Your task to perform on an android device: Go to eBay Image 0: 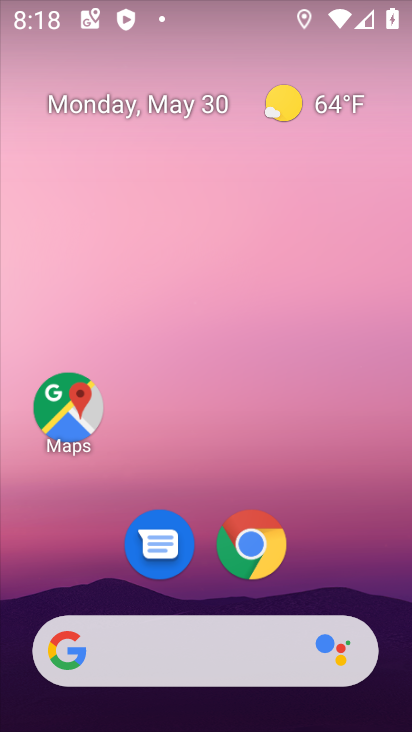
Step 0: drag from (176, 529) to (92, 104)
Your task to perform on an android device: Go to eBay Image 1: 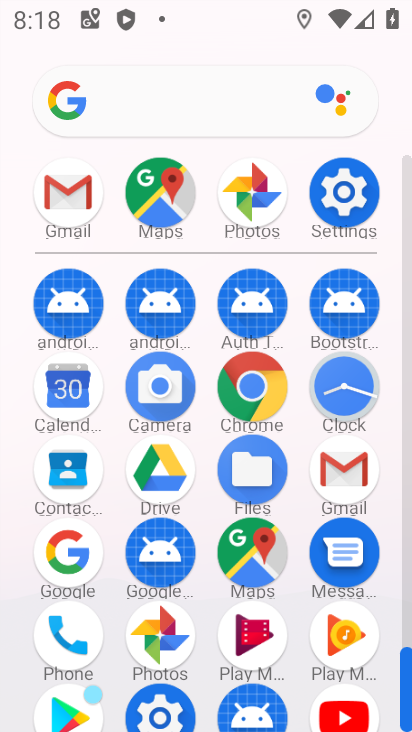
Step 1: click (61, 567)
Your task to perform on an android device: Go to eBay Image 2: 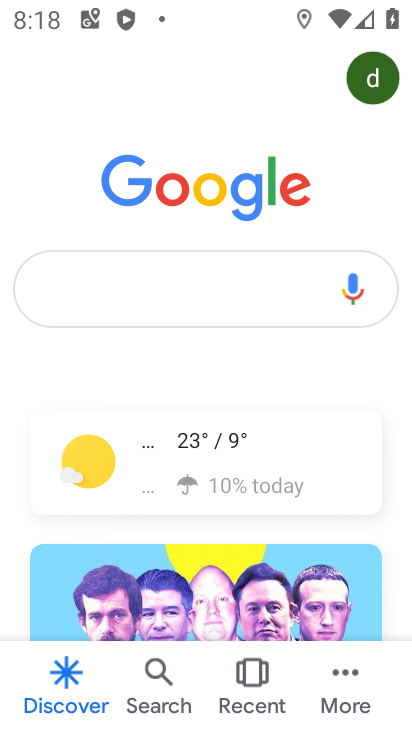
Step 2: click (157, 300)
Your task to perform on an android device: Go to eBay Image 3: 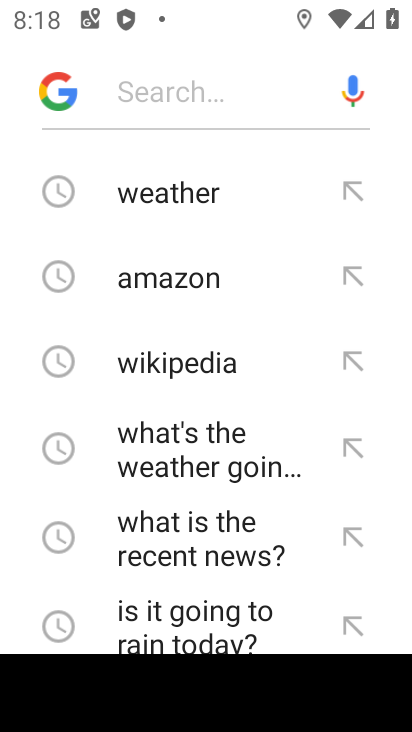
Step 3: type "ebay"
Your task to perform on an android device: Go to eBay Image 4: 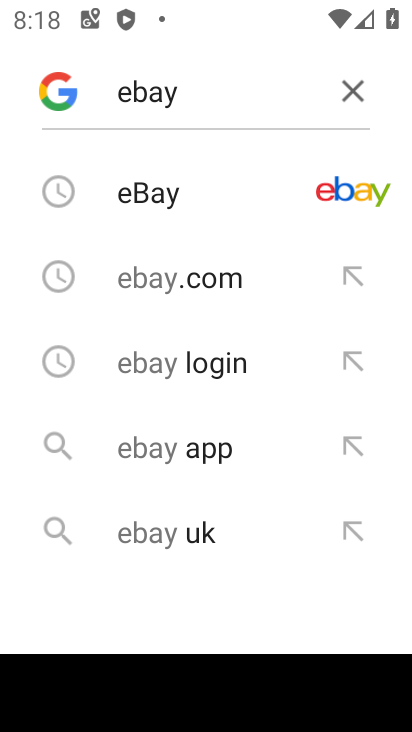
Step 4: click (174, 194)
Your task to perform on an android device: Go to eBay Image 5: 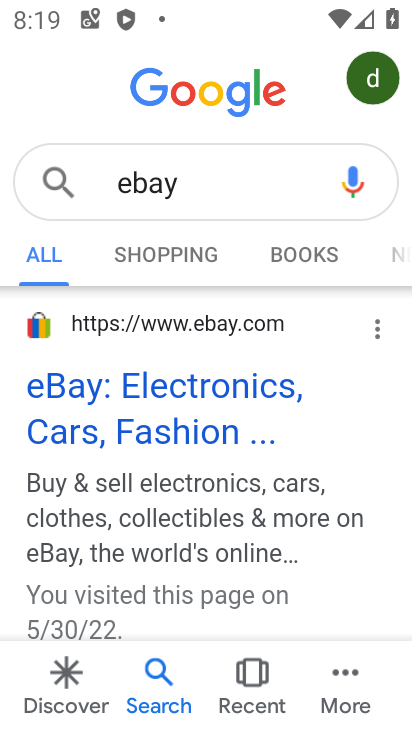
Step 5: click (138, 391)
Your task to perform on an android device: Go to eBay Image 6: 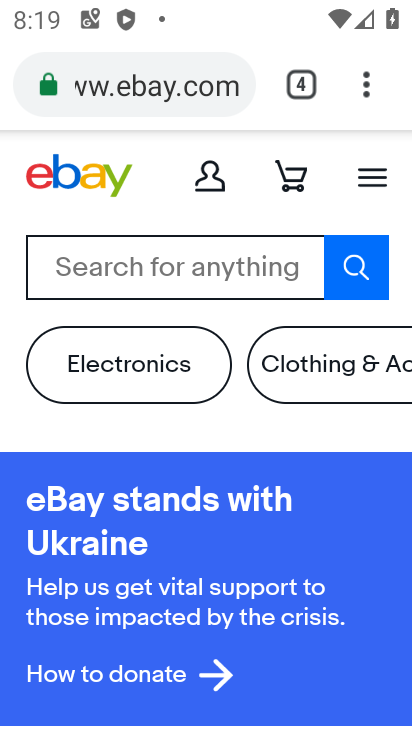
Step 6: task complete